Your task to perform on an android device: snooze an email in the gmail app Image 0: 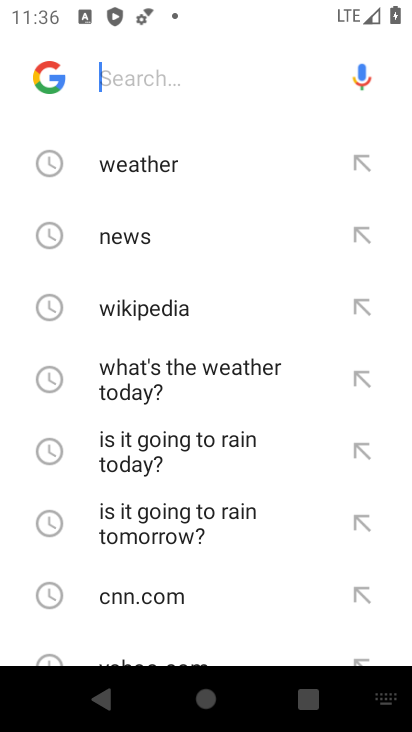
Step 0: press home button
Your task to perform on an android device: snooze an email in the gmail app Image 1: 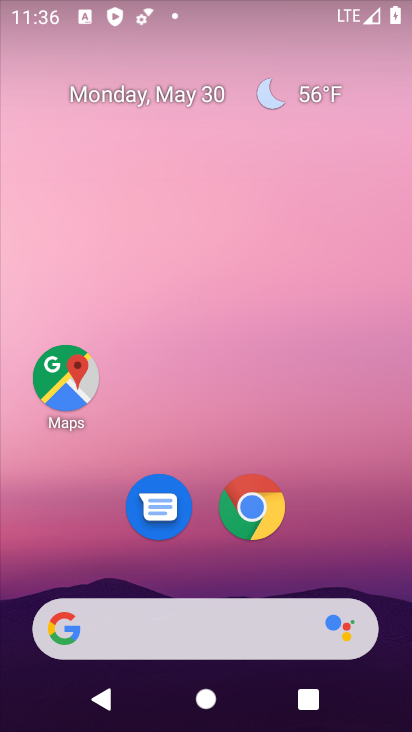
Step 1: drag from (395, 639) to (278, 59)
Your task to perform on an android device: snooze an email in the gmail app Image 2: 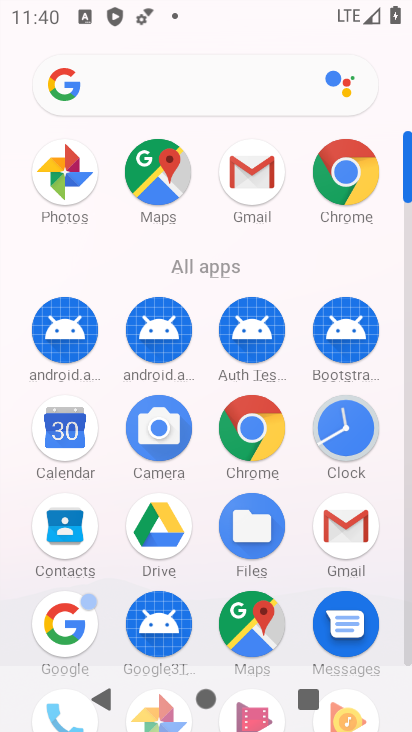
Step 2: click (361, 537)
Your task to perform on an android device: snooze an email in the gmail app Image 3: 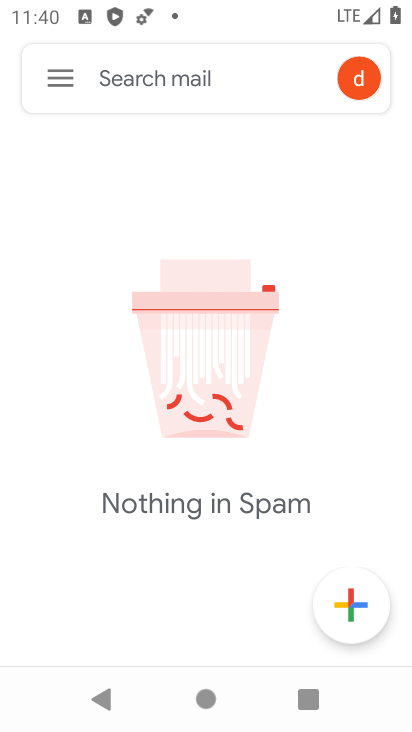
Step 3: task complete